Your task to perform on an android device: turn off location history Image 0: 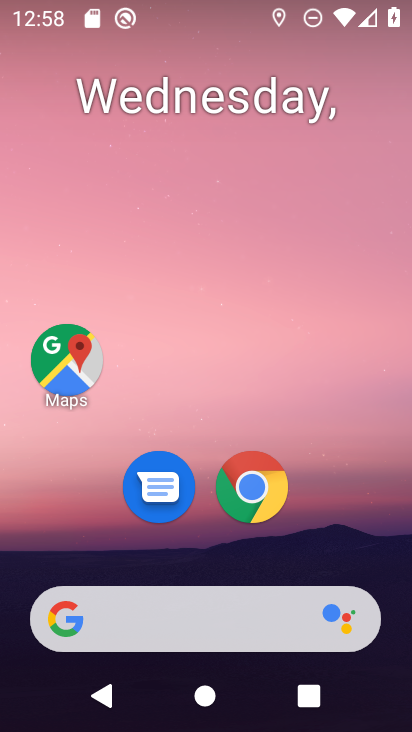
Step 0: drag from (354, 544) to (345, 81)
Your task to perform on an android device: turn off location history Image 1: 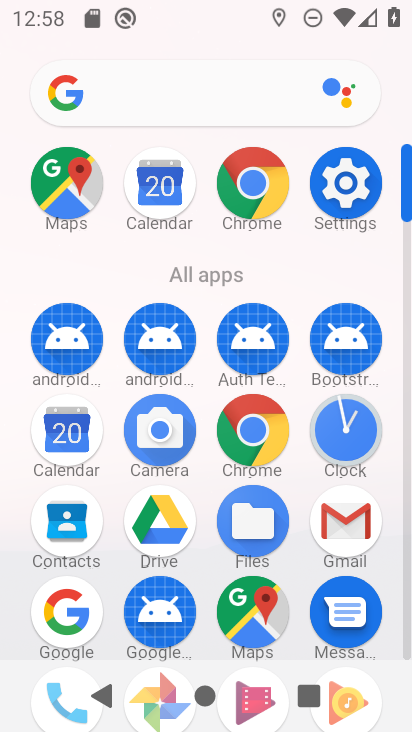
Step 1: click (353, 210)
Your task to perform on an android device: turn off location history Image 2: 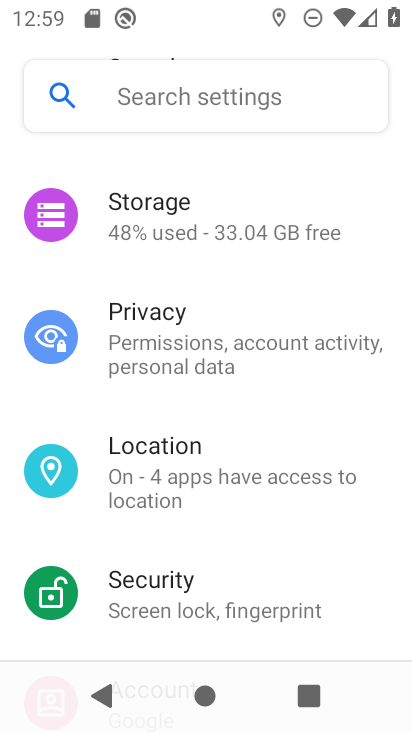
Step 2: drag from (366, 236) to (362, 325)
Your task to perform on an android device: turn off location history Image 3: 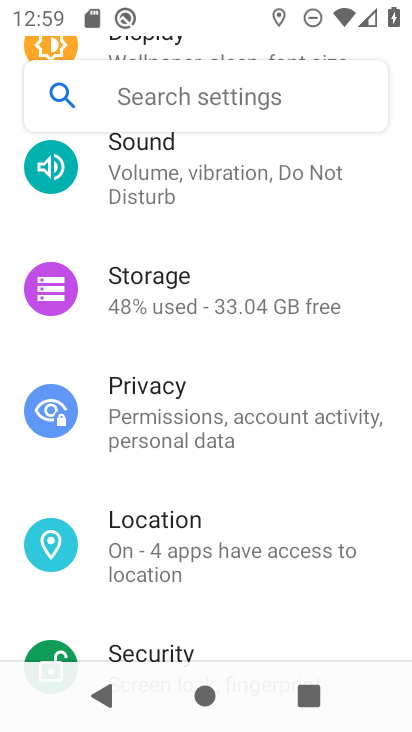
Step 3: drag from (360, 247) to (373, 382)
Your task to perform on an android device: turn off location history Image 4: 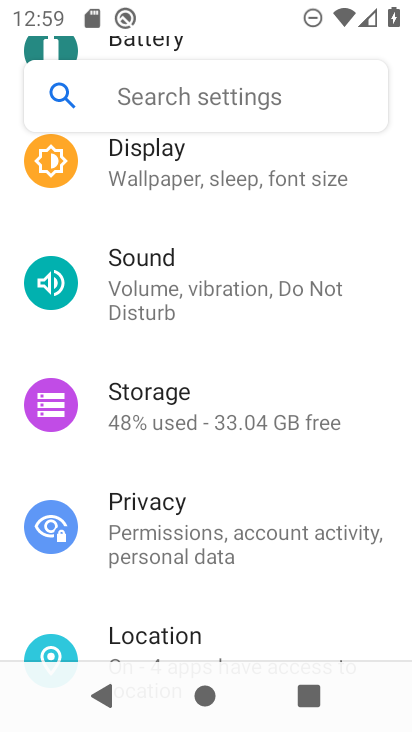
Step 4: drag from (362, 234) to (372, 402)
Your task to perform on an android device: turn off location history Image 5: 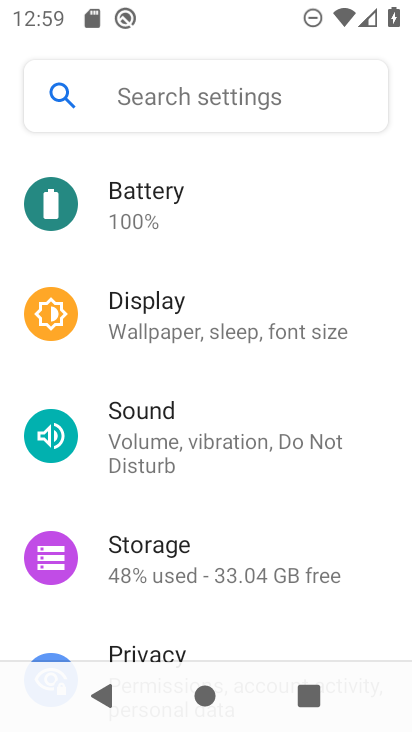
Step 5: drag from (352, 209) to (361, 373)
Your task to perform on an android device: turn off location history Image 6: 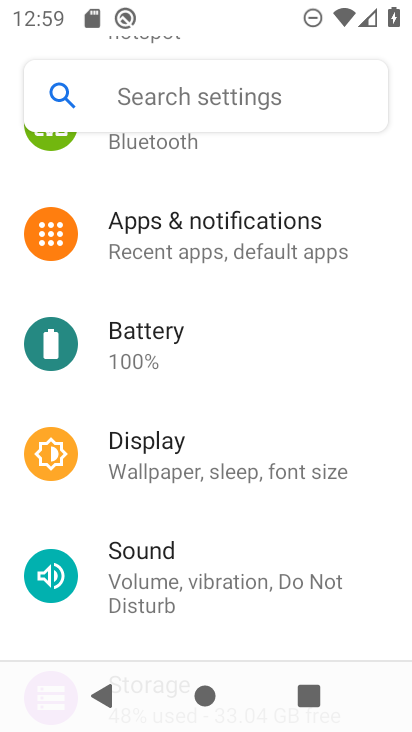
Step 6: drag from (357, 224) to (364, 381)
Your task to perform on an android device: turn off location history Image 7: 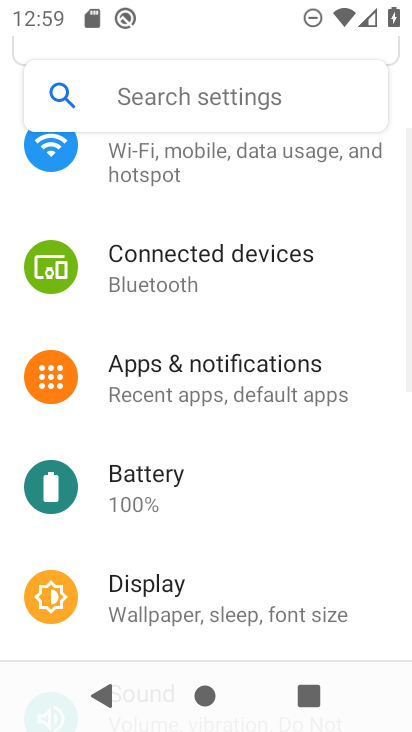
Step 7: drag from (352, 189) to (352, 319)
Your task to perform on an android device: turn off location history Image 8: 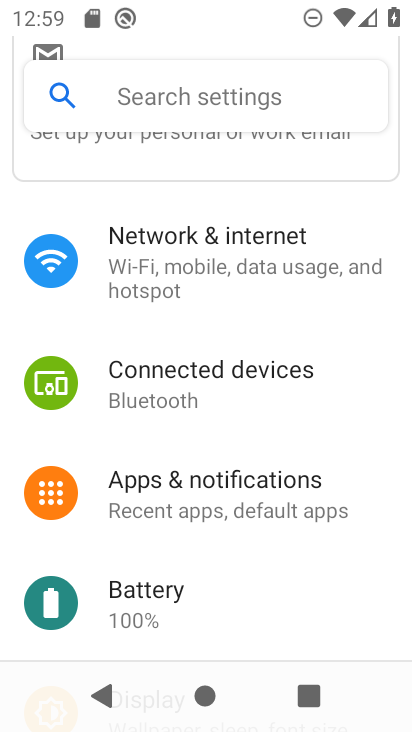
Step 8: drag from (353, 399) to (351, 283)
Your task to perform on an android device: turn off location history Image 9: 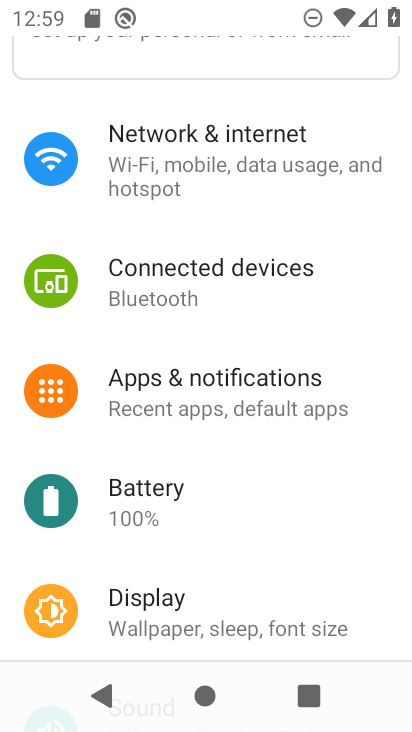
Step 9: drag from (349, 468) to (349, 359)
Your task to perform on an android device: turn off location history Image 10: 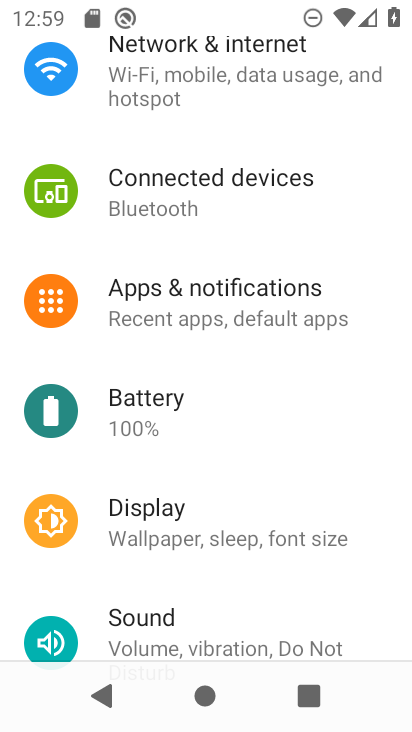
Step 10: drag from (330, 549) to (343, 428)
Your task to perform on an android device: turn off location history Image 11: 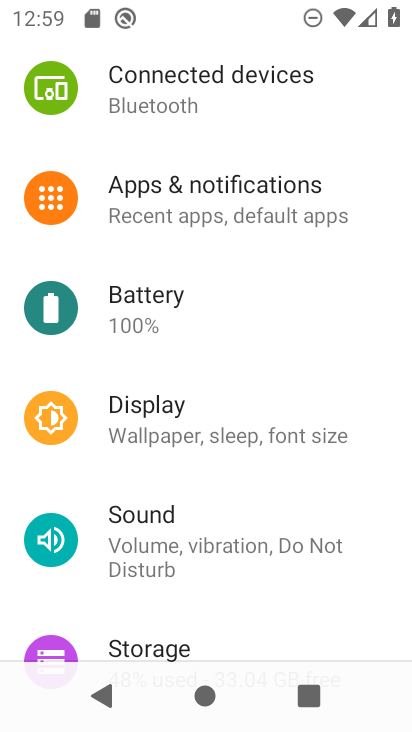
Step 11: drag from (343, 565) to (346, 424)
Your task to perform on an android device: turn off location history Image 12: 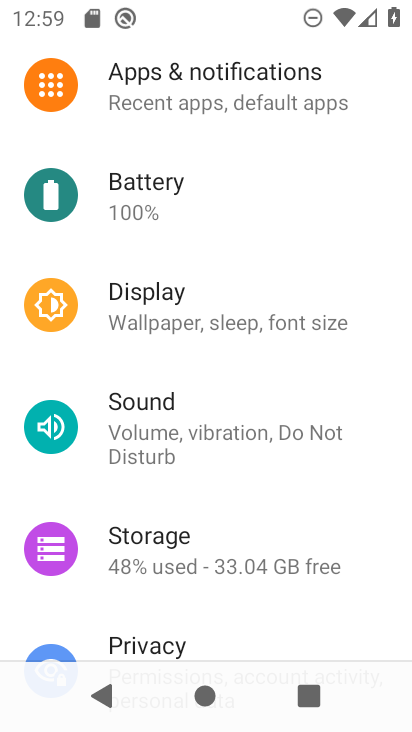
Step 12: drag from (332, 523) to (332, 420)
Your task to perform on an android device: turn off location history Image 13: 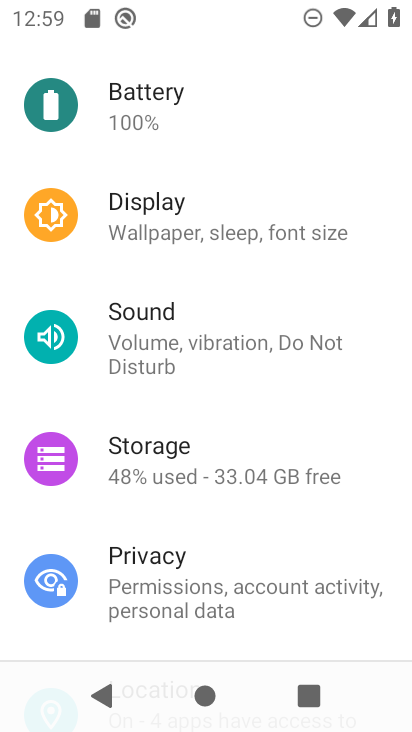
Step 13: drag from (332, 546) to (334, 422)
Your task to perform on an android device: turn off location history Image 14: 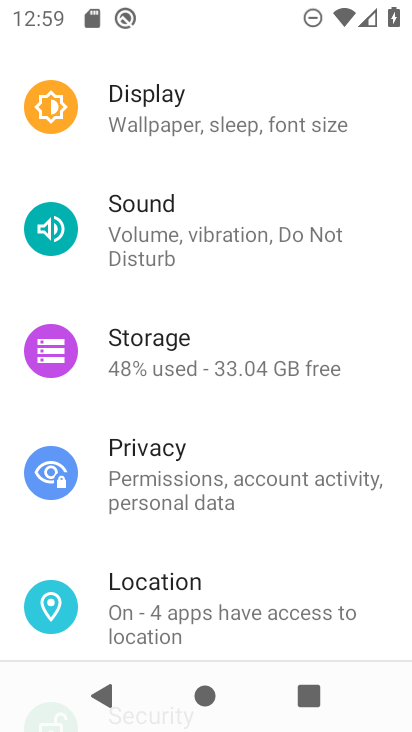
Step 14: drag from (326, 574) to (333, 424)
Your task to perform on an android device: turn off location history Image 15: 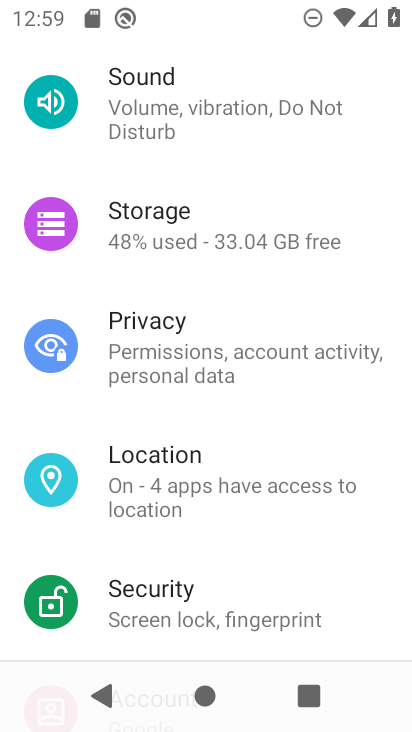
Step 15: click (328, 473)
Your task to perform on an android device: turn off location history Image 16: 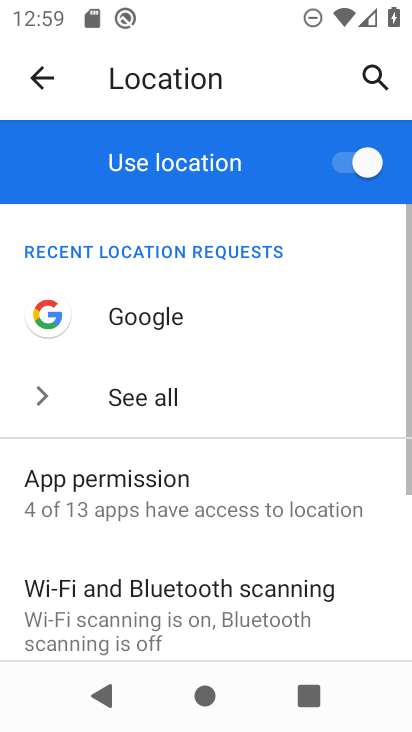
Step 16: drag from (328, 516) to (333, 344)
Your task to perform on an android device: turn off location history Image 17: 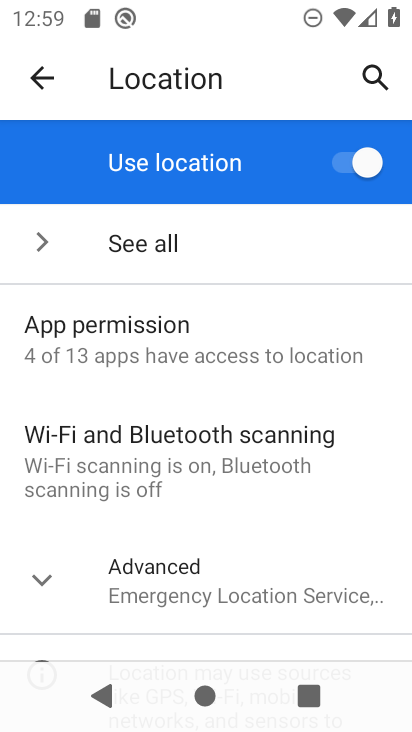
Step 17: click (296, 579)
Your task to perform on an android device: turn off location history Image 18: 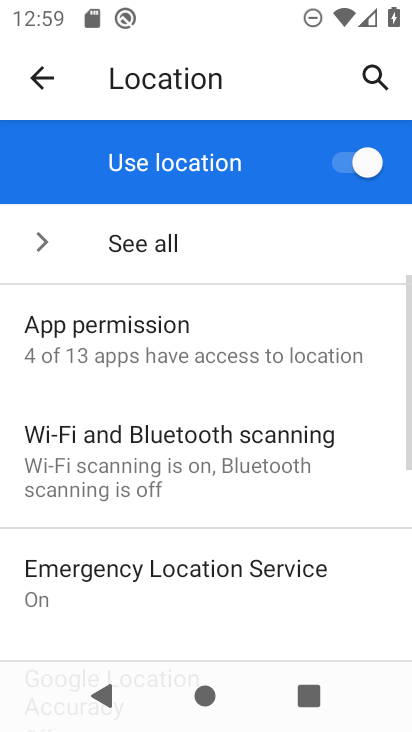
Step 18: task complete